Your task to perform on an android device: change alarm snooze length Image 0: 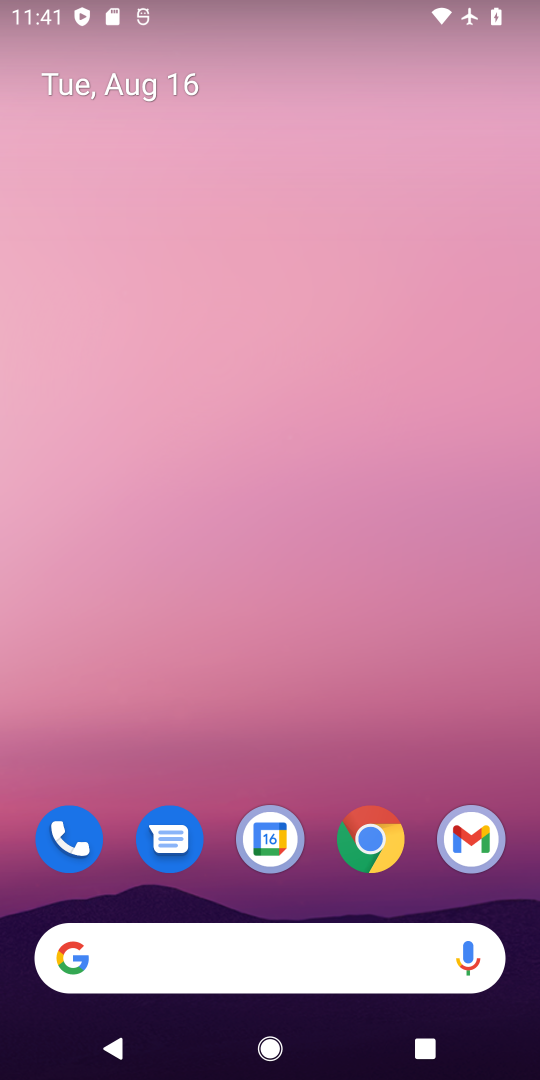
Step 0: drag from (216, 848) to (226, 13)
Your task to perform on an android device: change alarm snooze length Image 1: 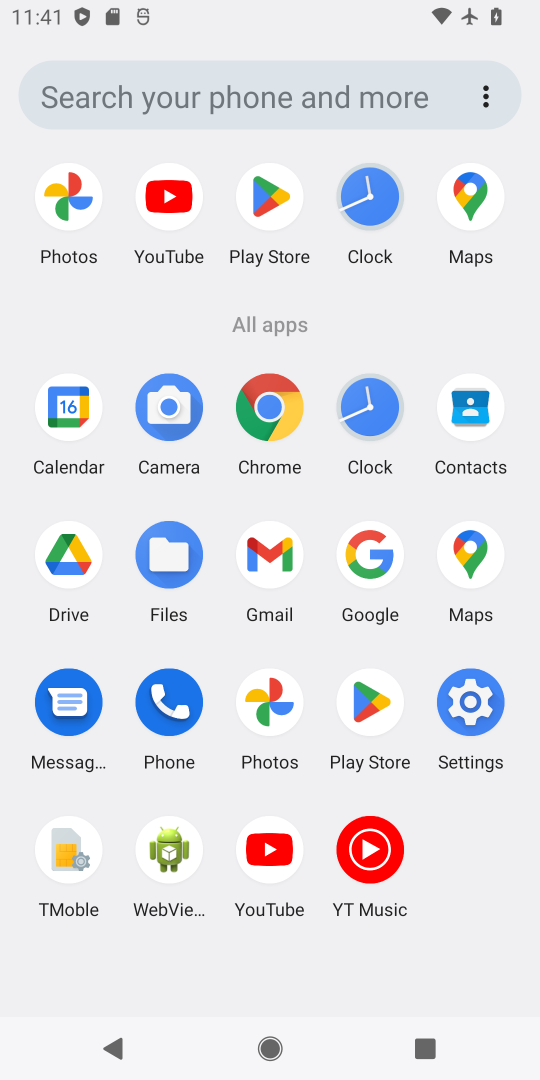
Step 1: click (368, 429)
Your task to perform on an android device: change alarm snooze length Image 2: 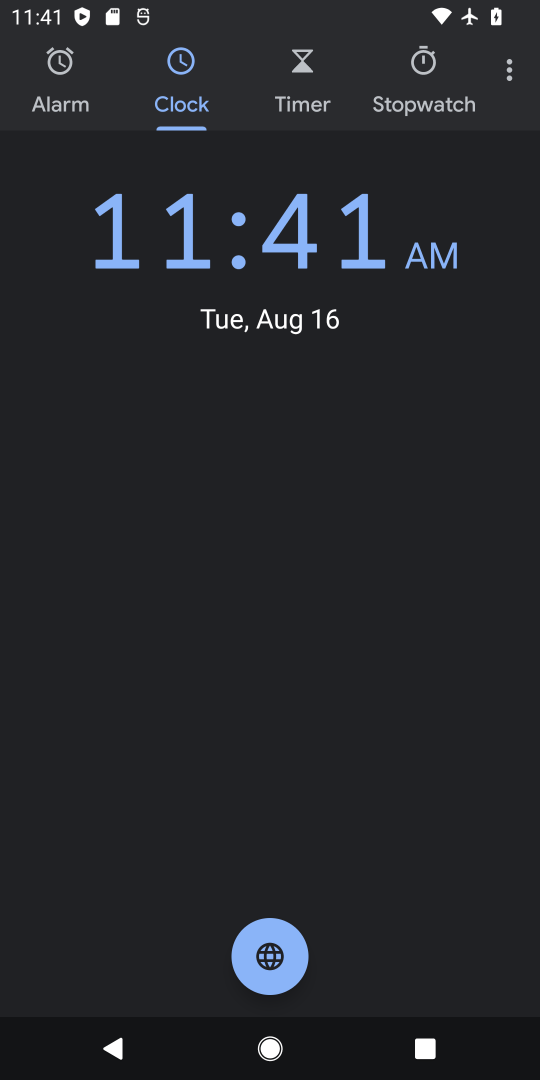
Step 2: click (505, 75)
Your task to perform on an android device: change alarm snooze length Image 3: 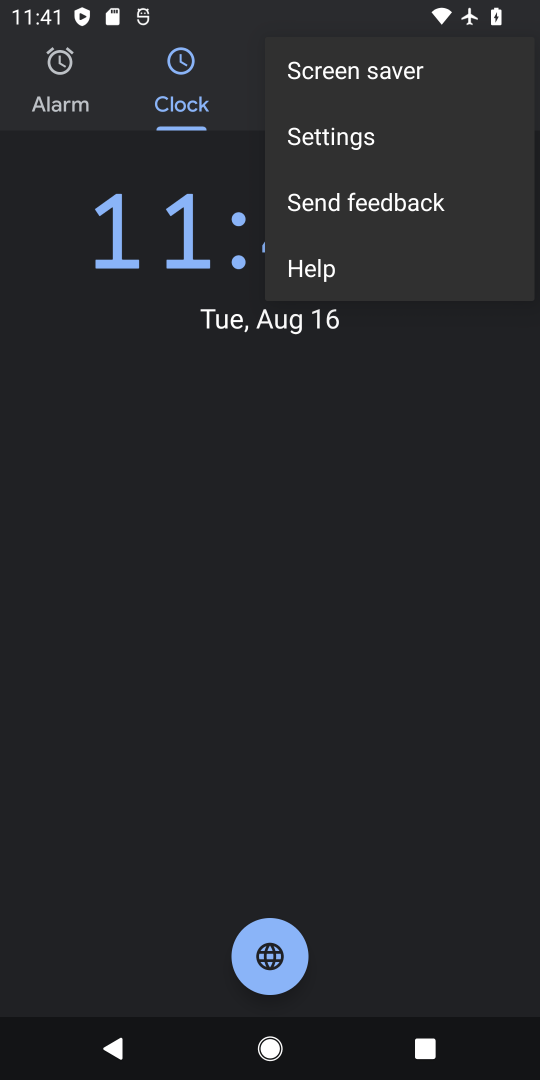
Step 3: click (373, 148)
Your task to perform on an android device: change alarm snooze length Image 4: 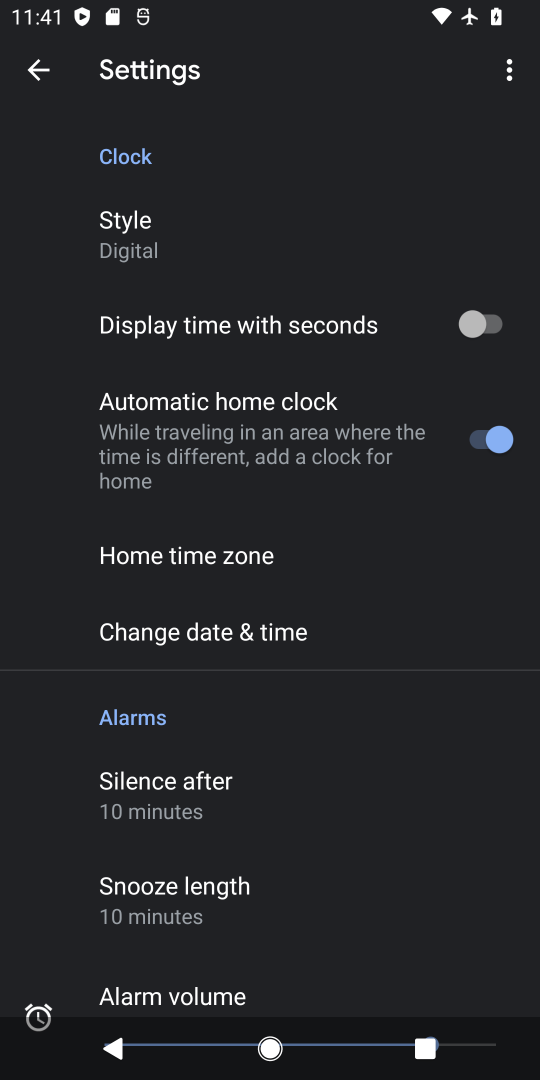
Step 4: drag from (215, 818) to (248, 522)
Your task to perform on an android device: change alarm snooze length Image 5: 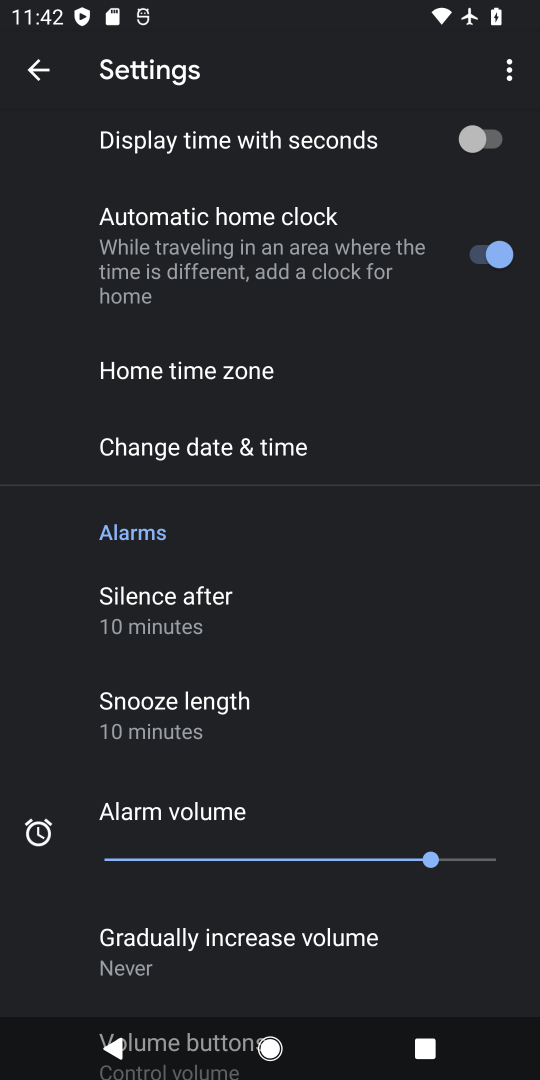
Step 5: drag from (251, 871) to (302, 516)
Your task to perform on an android device: change alarm snooze length Image 6: 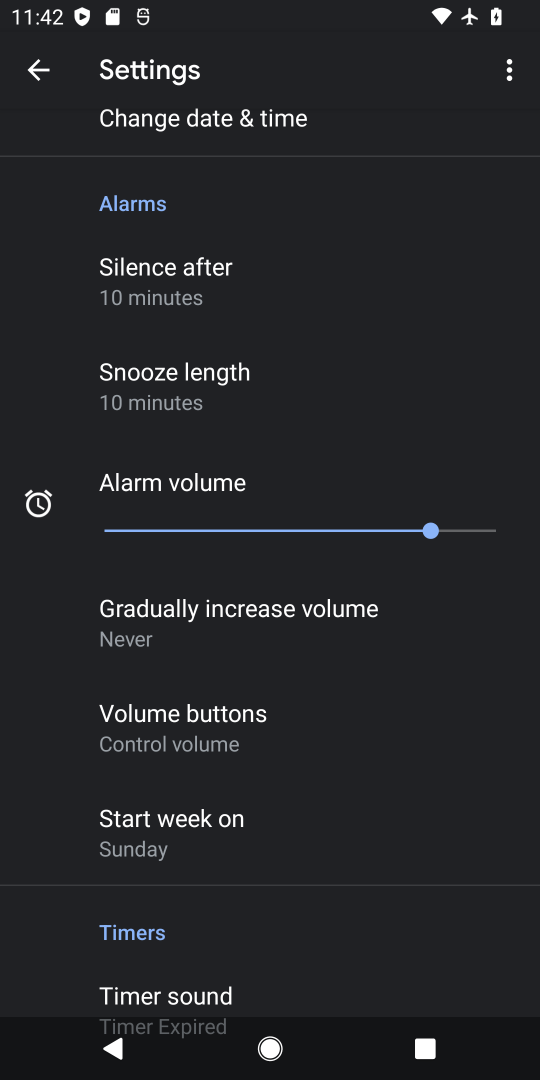
Step 6: click (177, 389)
Your task to perform on an android device: change alarm snooze length Image 7: 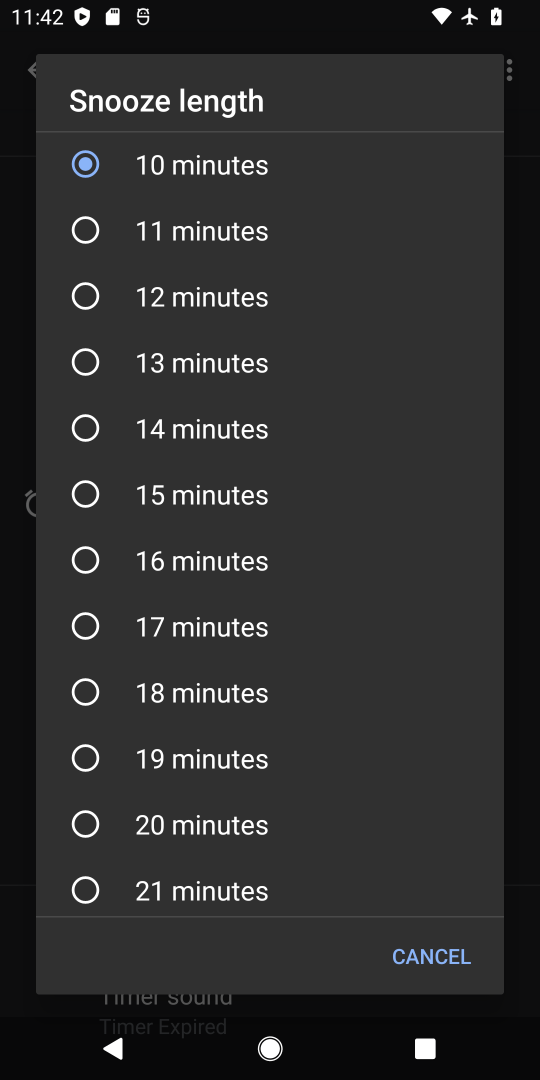
Step 7: click (140, 493)
Your task to perform on an android device: change alarm snooze length Image 8: 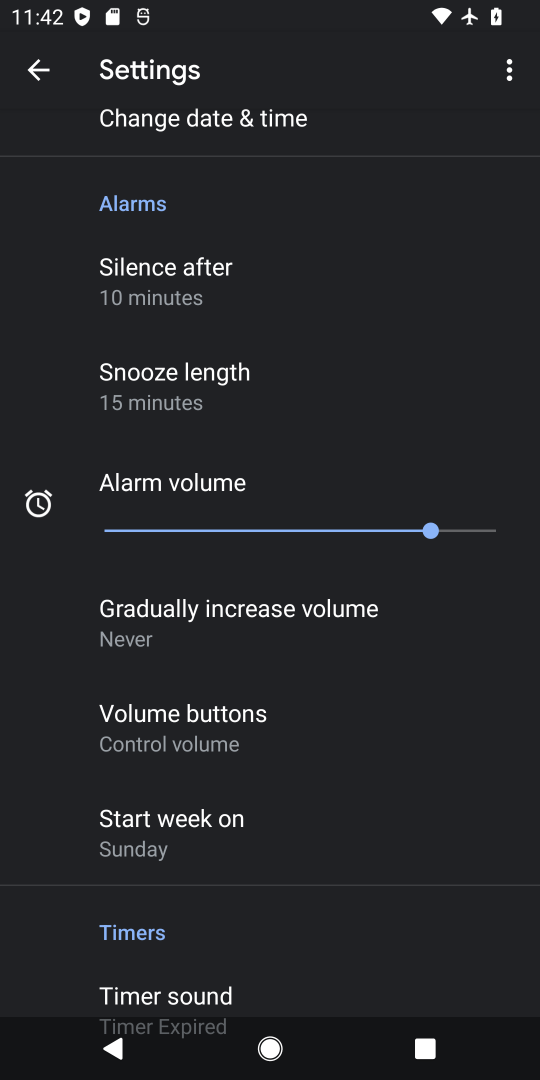
Step 8: task complete